Your task to perform on an android device: check data usage Image 0: 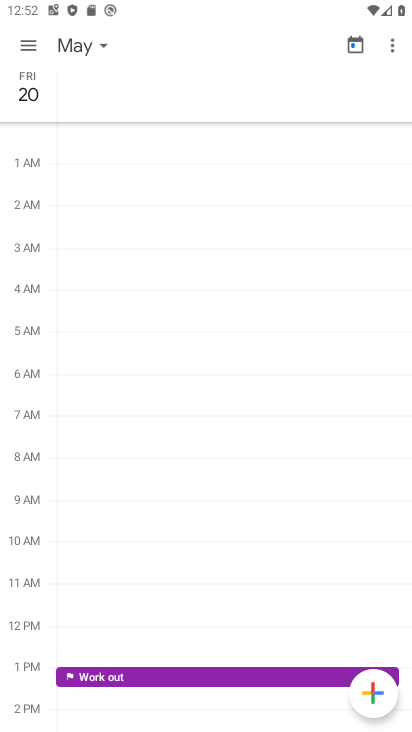
Step 0: press home button
Your task to perform on an android device: check data usage Image 1: 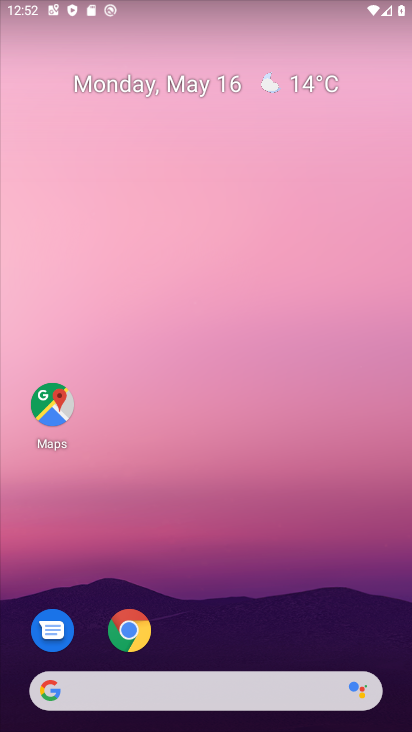
Step 1: drag from (385, 19) to (384, 540)
Your task to perform on an android device: check data usage Image 2: 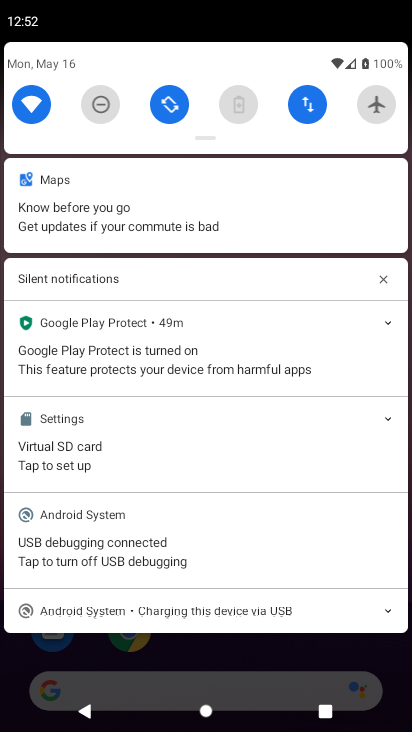
Step 2: click (311, 109)
Your task to perform on an android device: check data usage Image 3: 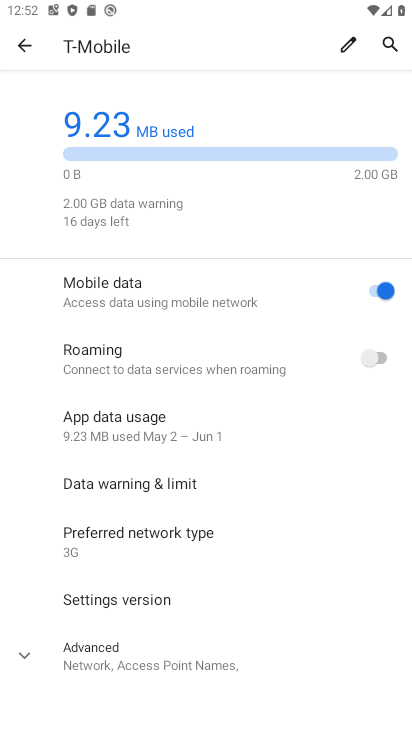
Step 3: task complete